Your task to perform on an android device: Open Reddit.com Image 0: 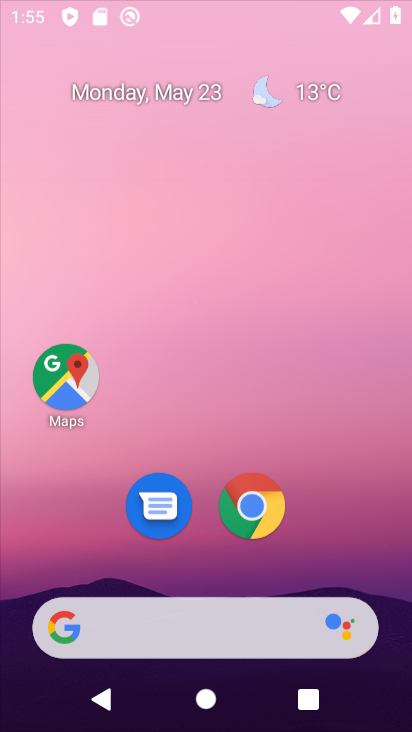
Step 0: click (223, 390)
Your task to perform on an android device: Open Reddit.com Image 1: 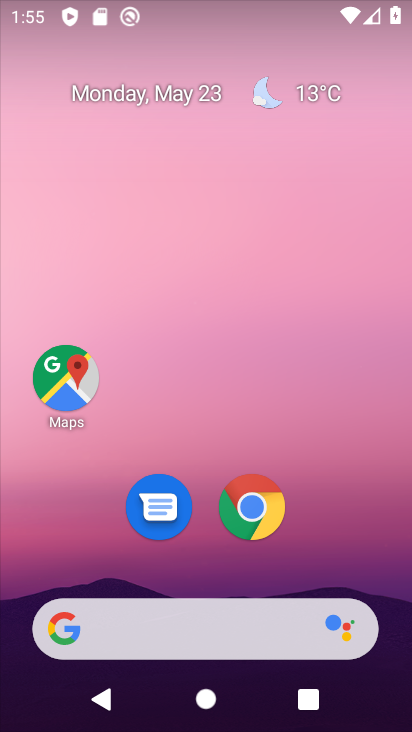
Step 1: click (377, 344)
Your task to perform on an android device: Open Reddit.com Image 2: 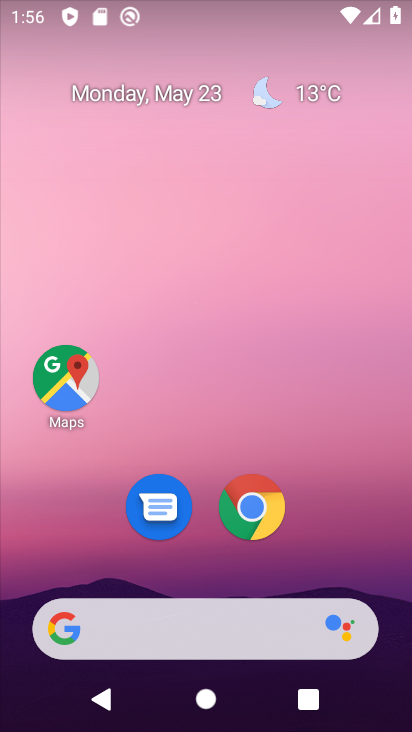
Step 2: drag from (269, 658) to (229, 167)
Your task to perform on an android device: Open Reddit.com Image 3: 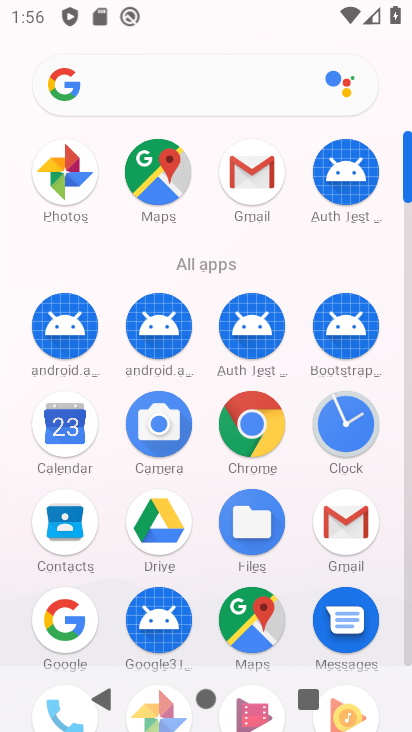
Step 3: drag from (322, 479) to (213, 27)
Your task to perform on an android device: Open Reddit.com Image 4: 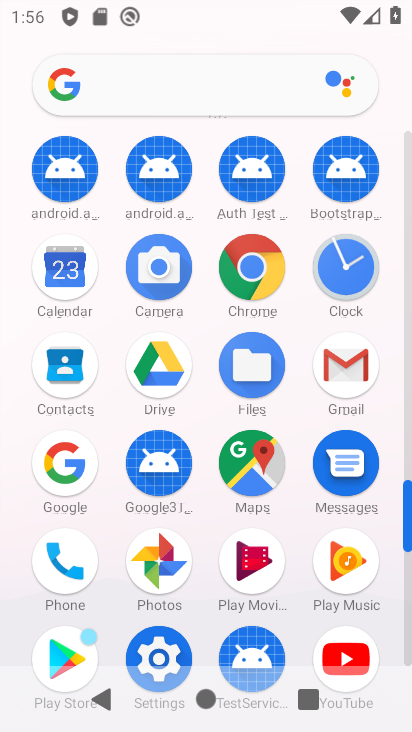
Step 4: click (280, 120)
Your task to perform on an android device: Open Reddit.com Image 5: 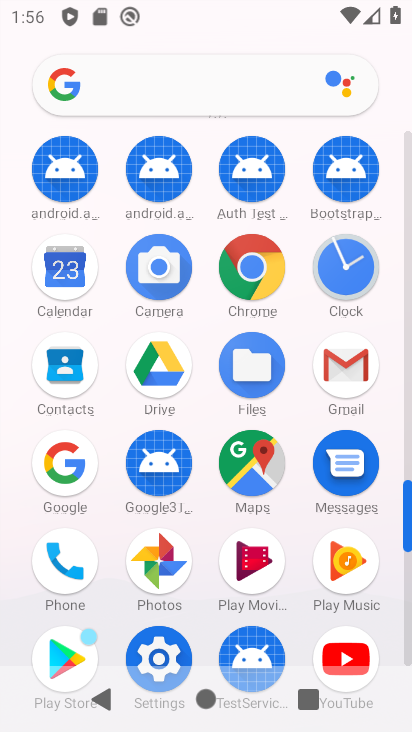
Step 5: drag from (234, 21) to (387, 32)
Your task to perform on an android device: Open Reddit.com Image 6: 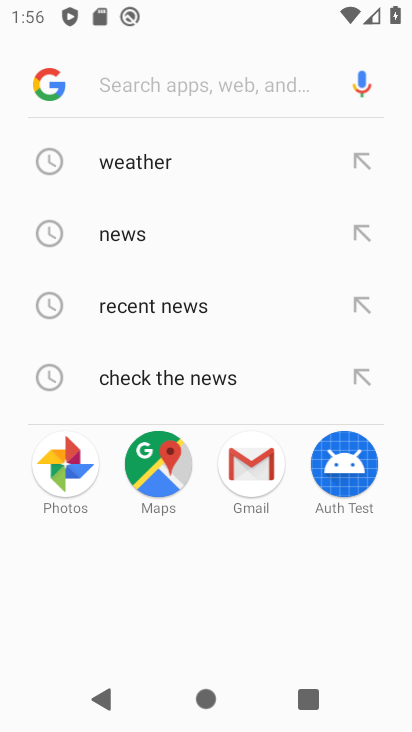
Step 6: click (104, 62)
Your task to perform on an android device: Open Reddit.com Image 7: 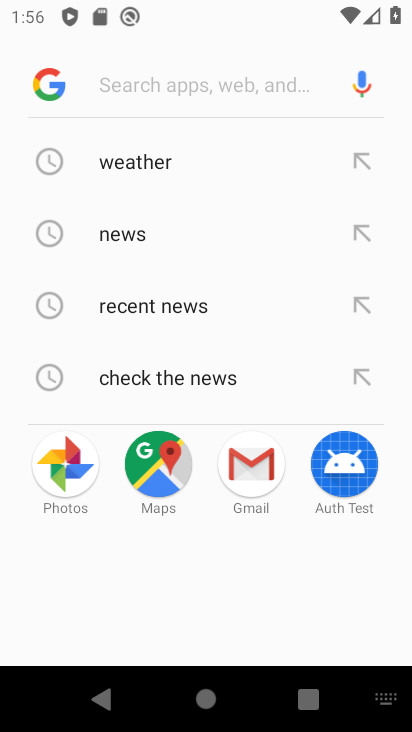
Step 7: type "reddit.com"
Your task to perform on an android device: Open Reddit.com Image 8: 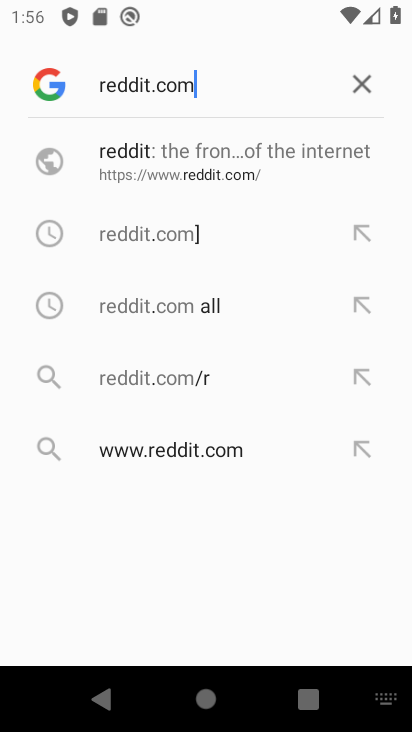
Step 8: click (107, 80)
Your task to perform on an android device: Open Reddit.com Image 9: 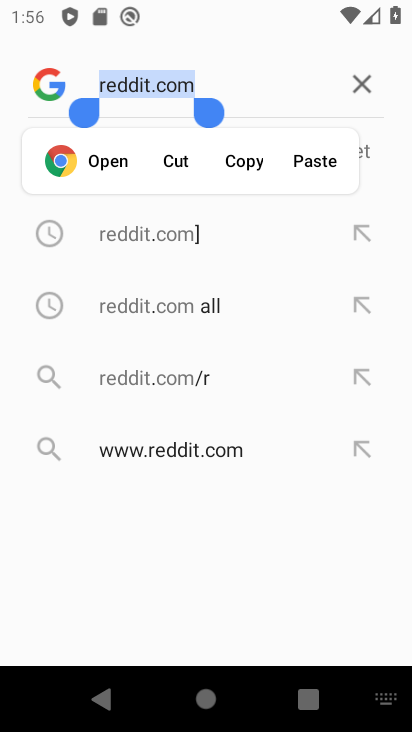
Step 9: click (182, 161)
Your task to perform on an android device: Open Reddit.com Image 10: 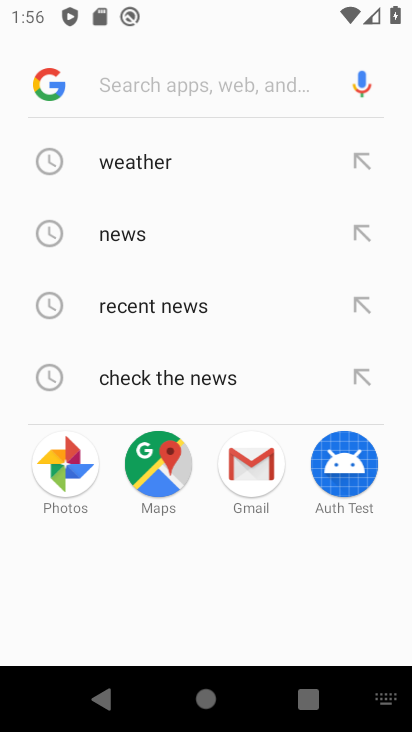
Step 10: click (215, 225)
Your task to perform on an android device: Open Reddit.com Image 11: 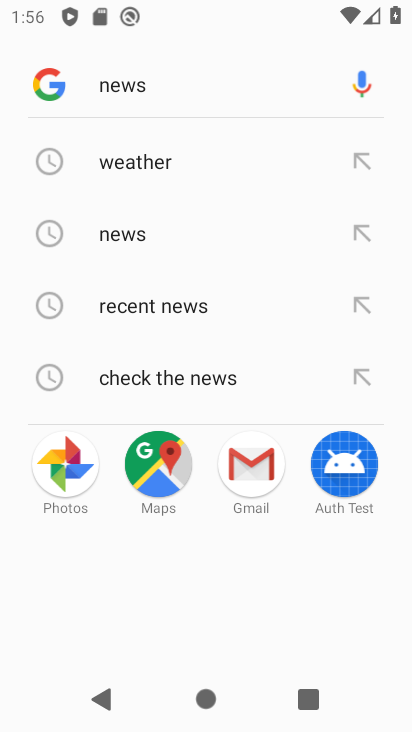
Step 11: click (250, 216)
Your task to perform on an android device: Open Reddit.com Image 12: 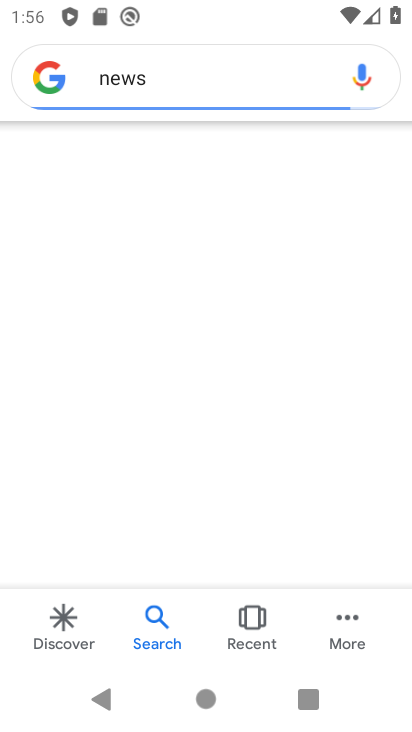
Step 12: click (97, 163)
Your task to perform on an android device: Open Reddit.com Image 13: 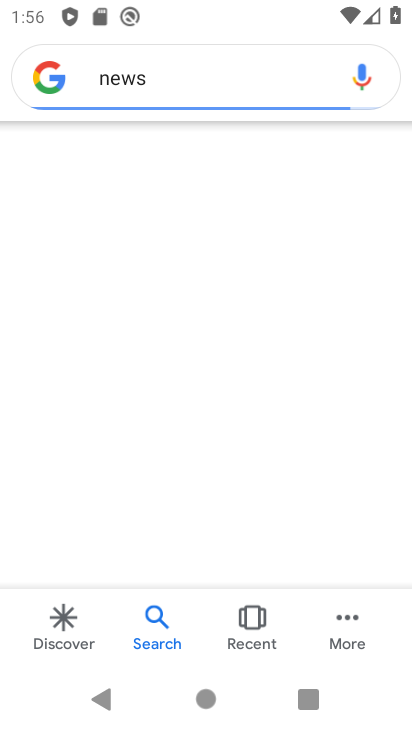
Step 13: task complete